Your task to perform on an android device: toggle data saver in the chrome app Image 0: 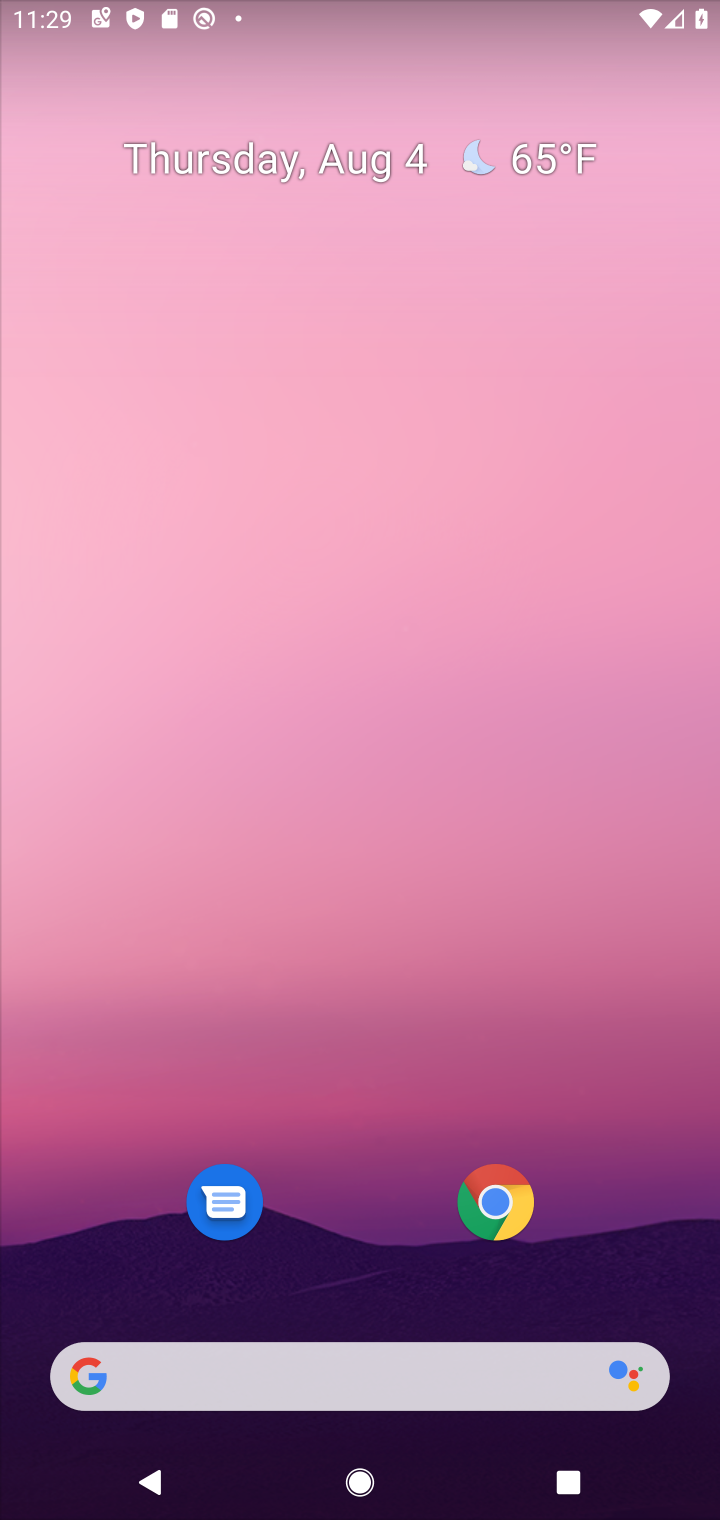
Step 0: click (510, 1186)
Your task to perform on an android device: toggle data saver in the chrome app Image 1: 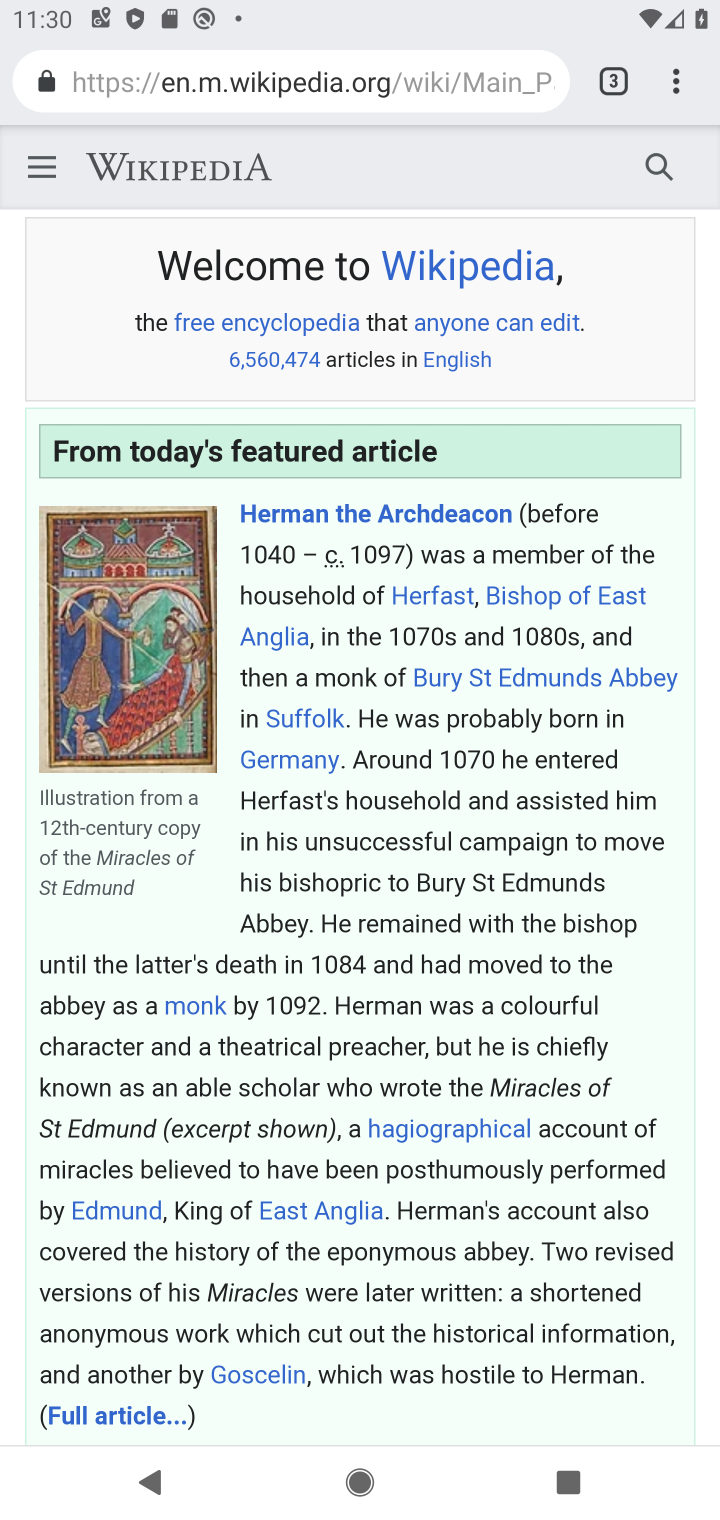
Step 1: click (672, 82)
Your task to perform on an android device: toggle data saver in the chrome app Image 2: 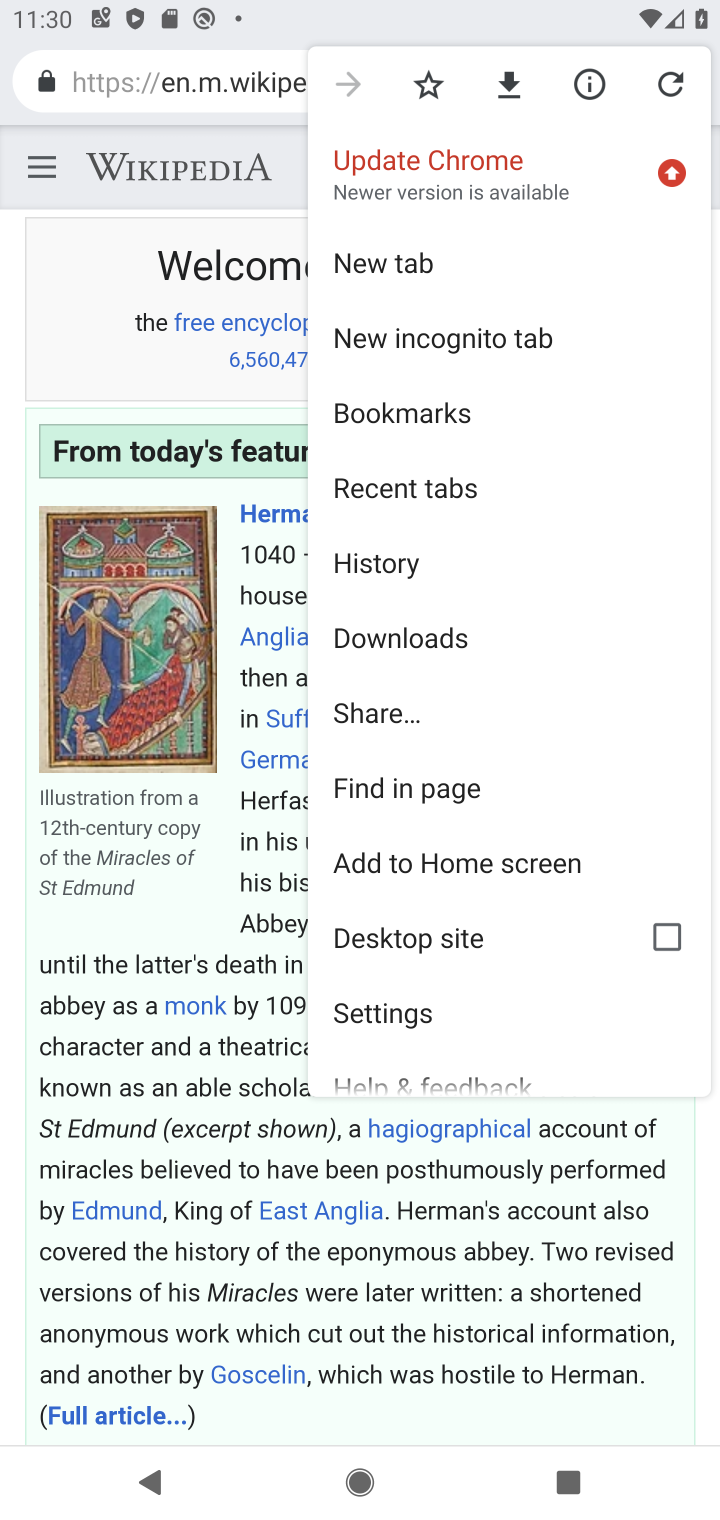
Step 2: click (415, 1010)
Your task to perform on an android device: toggle data saver in the chrome app Image 3: 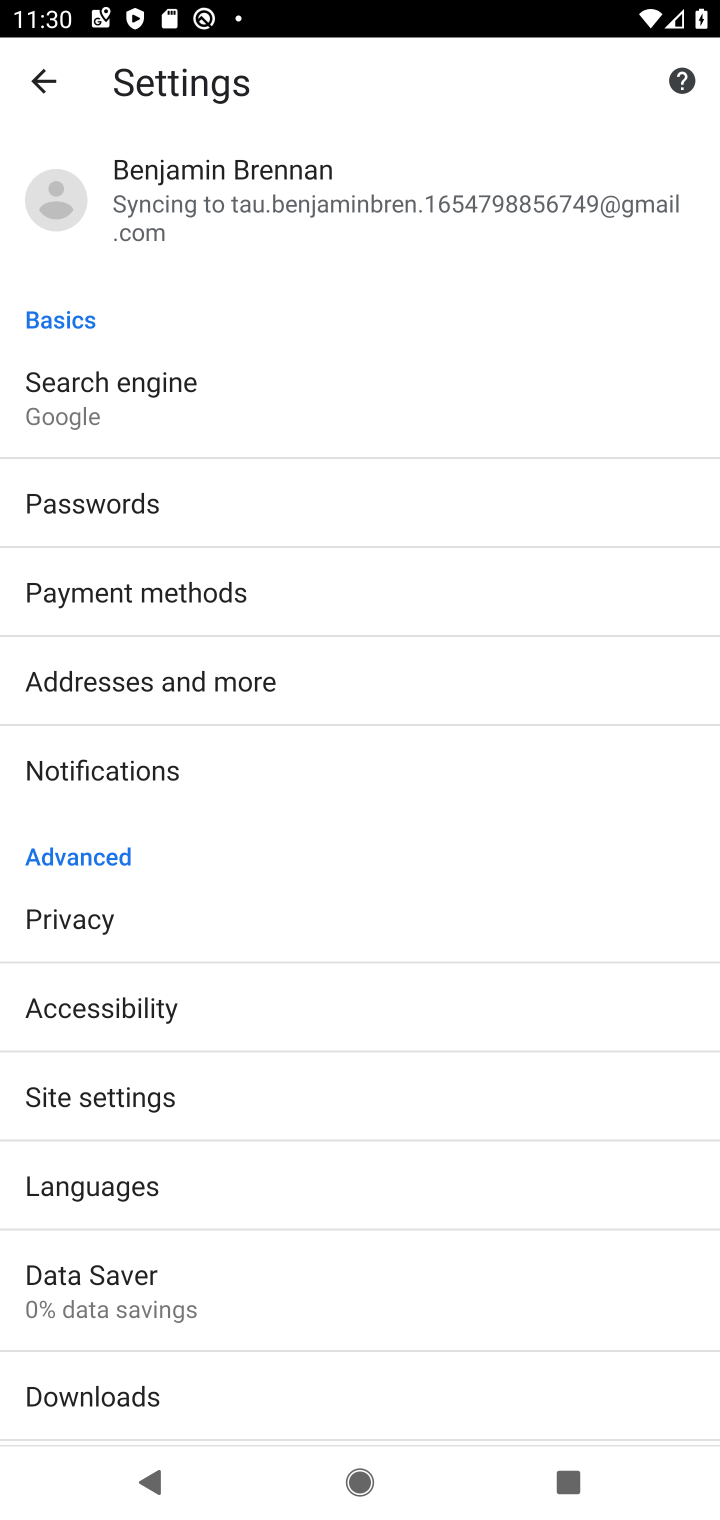
Step 3: click (142, 1291)
Your task to perform on an android device: toggle data saver in the chrome app Image 4: 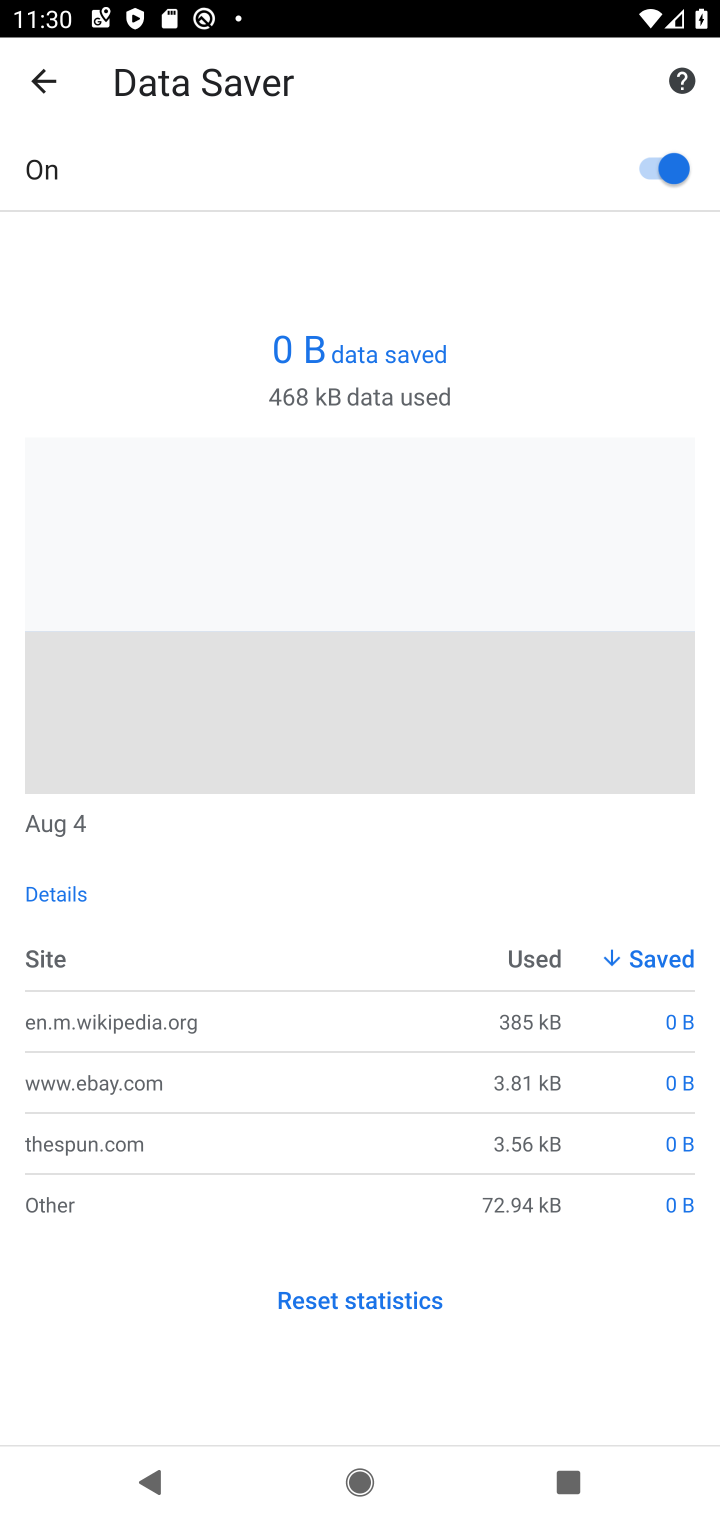
Step 4: click (666, 161)
Your task to perform on an android device: toggle data saver in the chrome app Image 5: 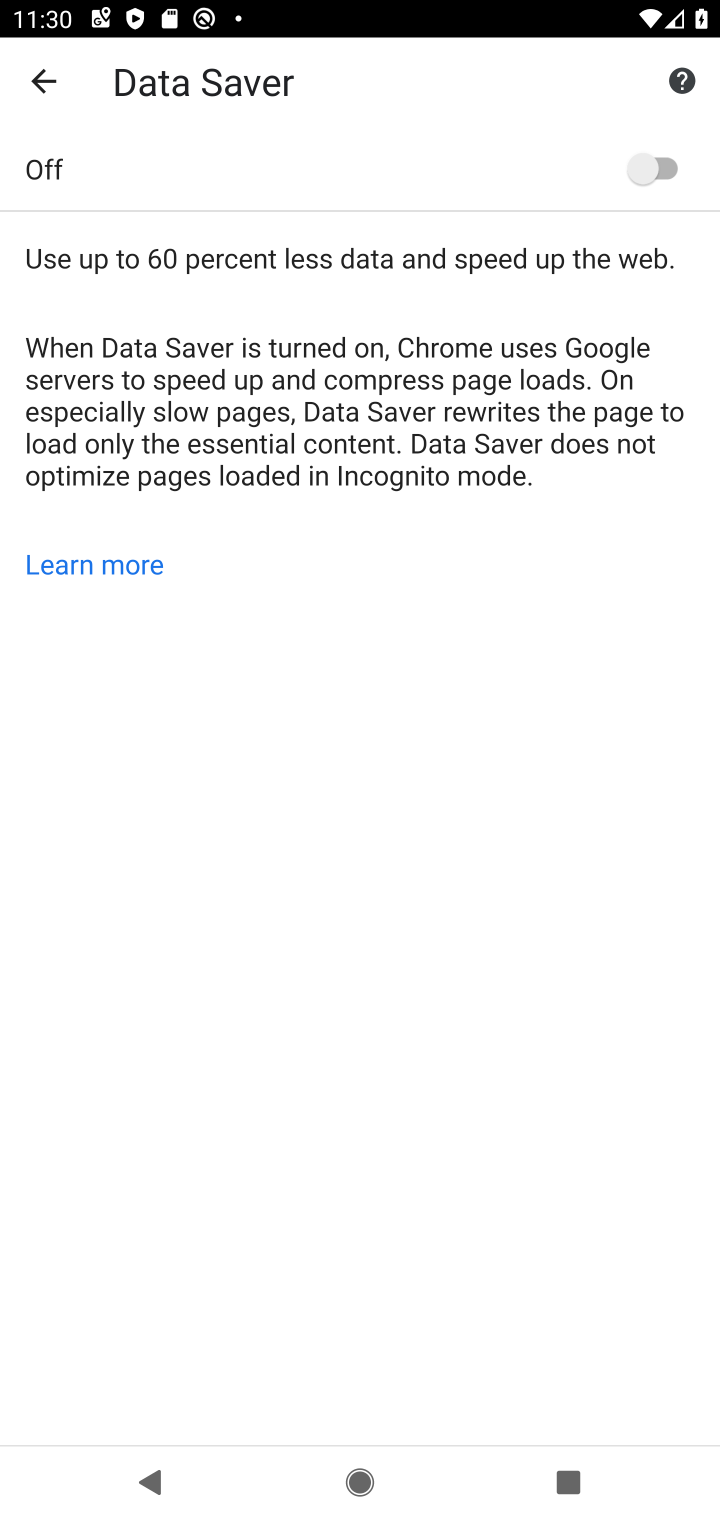
Step 5: task complete